Your task to perform on an android device: Open calendar and show me the first week of next month Image 0: 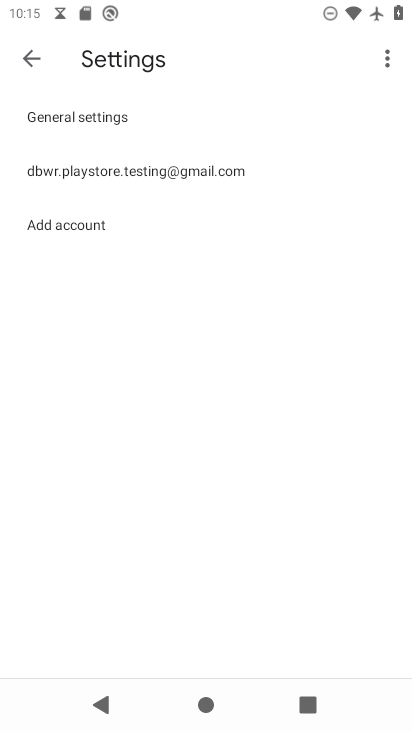
Step 0: press home button
Your task to perform on an android device: Open calendar and show me the first week of next month Image 1: 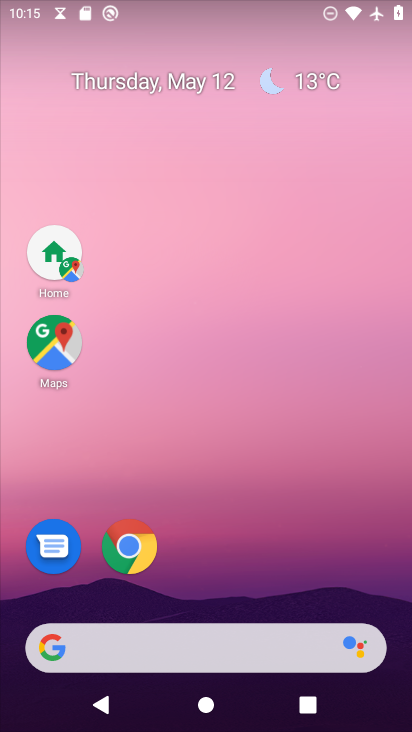
Step 1: drag from (193, 578) to (234, 206)
Your task to perform on an android device: Open calendar and show me the first week of next month Image 2: 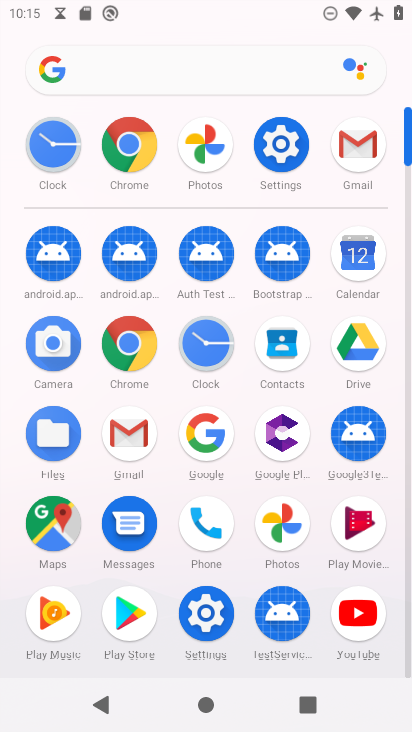
Step 2: click (353, 265)
Your task to perform on an android device: Open calendar and show me the first week of next month Image 3: 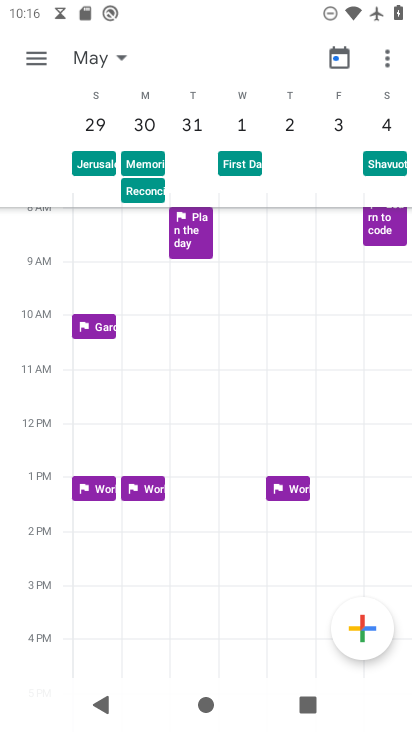
Step 3: task complete